Your task to perform on an android device: turn on data saver in the chrome app Image 0: 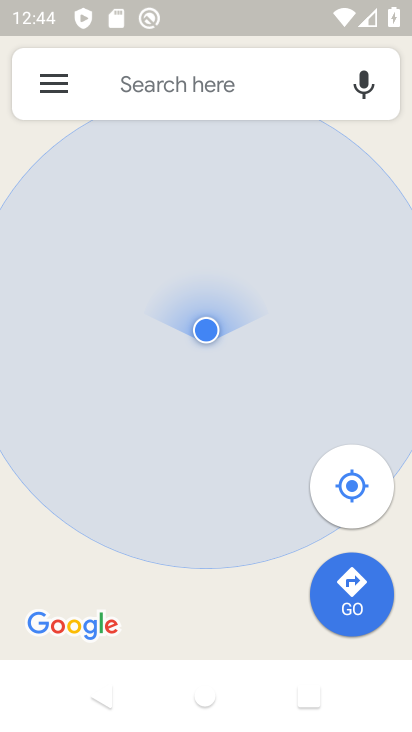
Step 0: press home button
Your task to perform on an android device: turn on data saver in the chrome app Image 1: 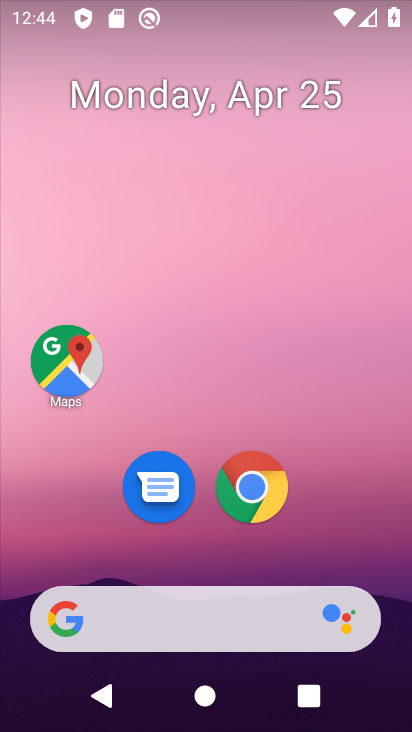
Step 1: drag from (275, 619) to (342, 22)
Your task to perform on an android device: turn on data saver in the chrome app Image 2: 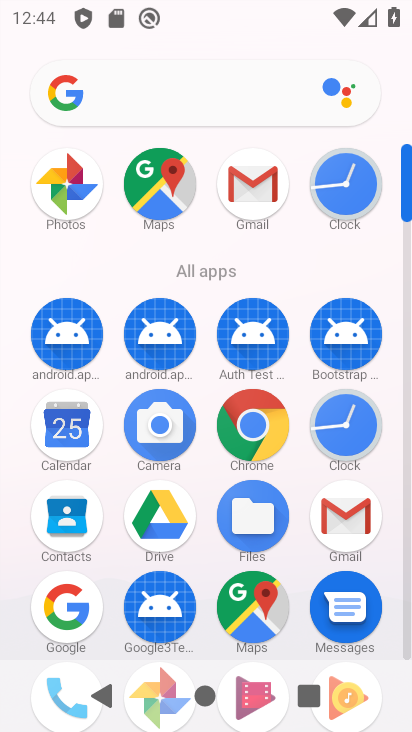
Step 2: click (235, 445)
Your task to perform on an android device: turn on data saver in the chrome app Image 3: 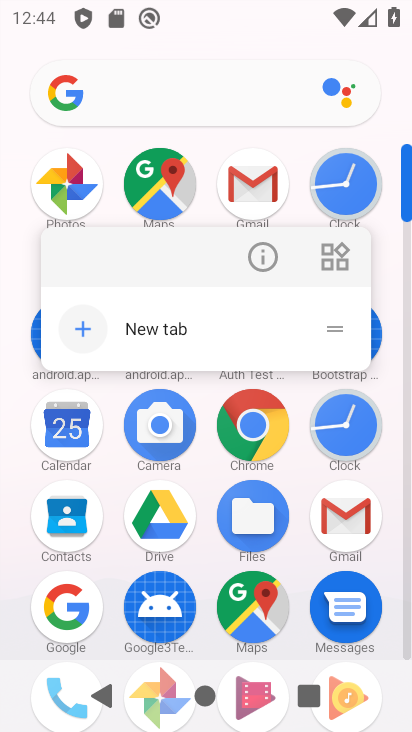
Step 3: click (238, 441)
Your task to perform on an android device: turn on data saver in the chrome app Image 4: 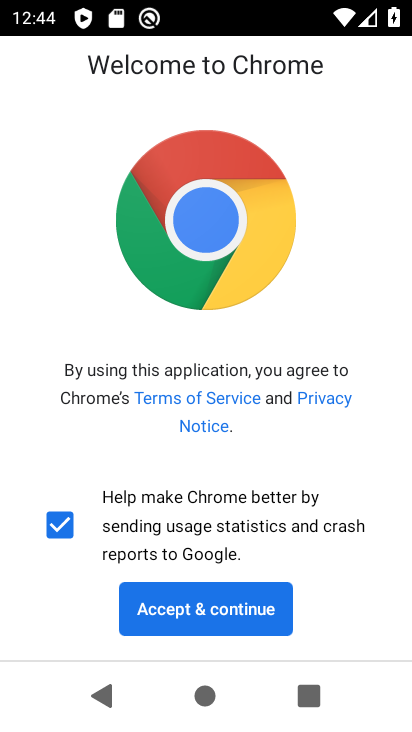
Step 4: click (261, 605)
Your task to perform on an android device: turn on data saver in the chrome app Image 5: 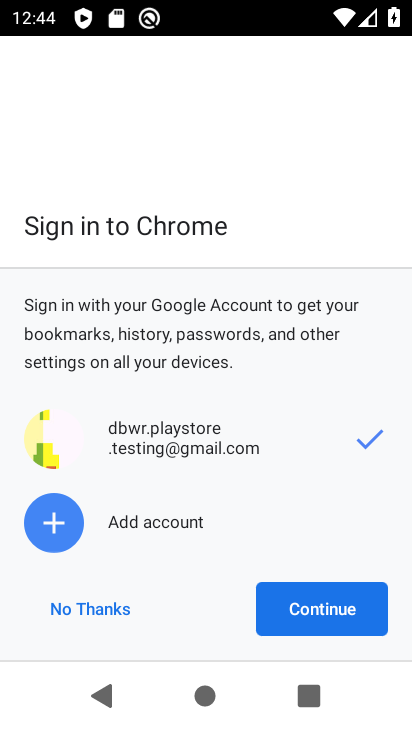
Step 5: click (62, 605)
Your task to perform on an android device: turn on data saver in the chrome app Image 6: 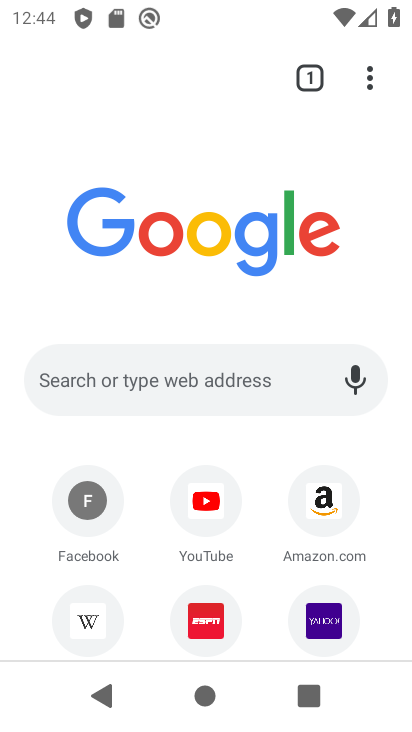
Step 6: drag from (365, 73) to (181, 551)
Your task to perform on an android device: turn on data saver in the chrome app Image 7: 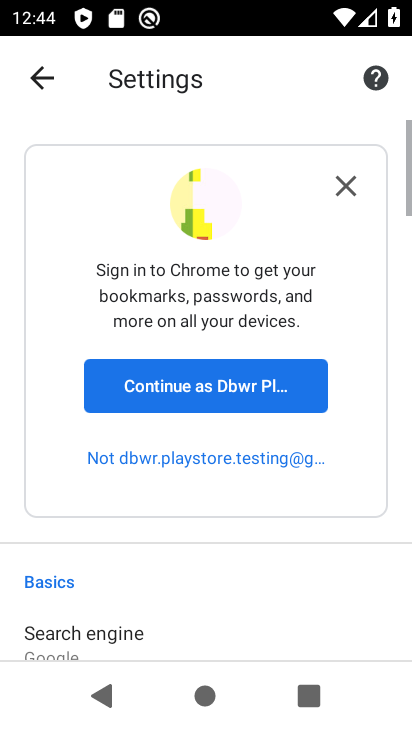
Step 7: drag from (205, 643) to (263, 1)
Your task to perform on an android device: turn on data saver in the chrome app Image 8: 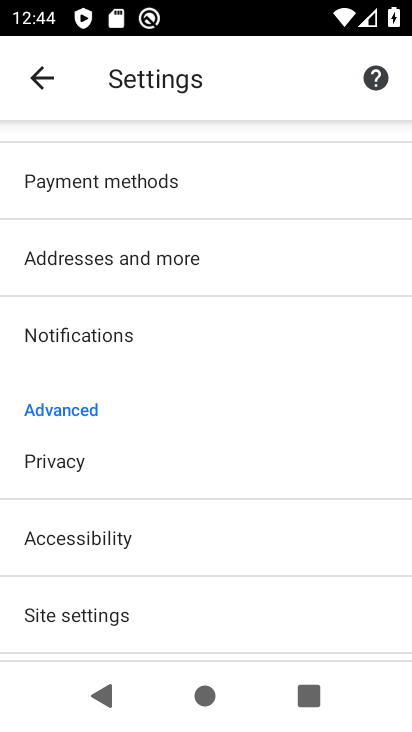
Step 8: drag from (292, 623) to (311, 107)
Your task to perform on an android device: turn on data saver in the chrome app Image 9: 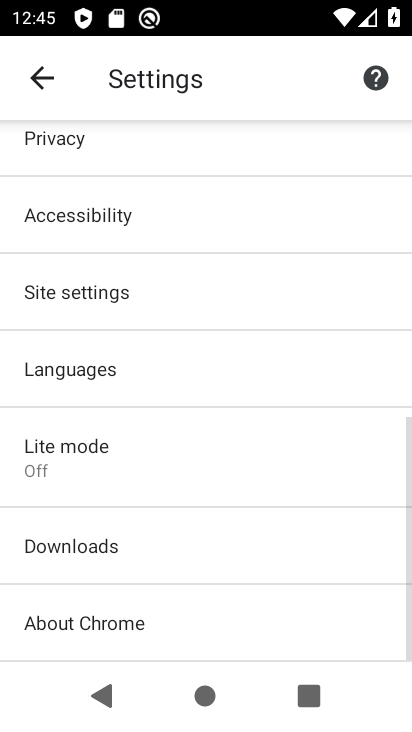
Step 9: click (95, 472)
Your task to perform on an android device: turn on data saver in the chrome app Image 10: 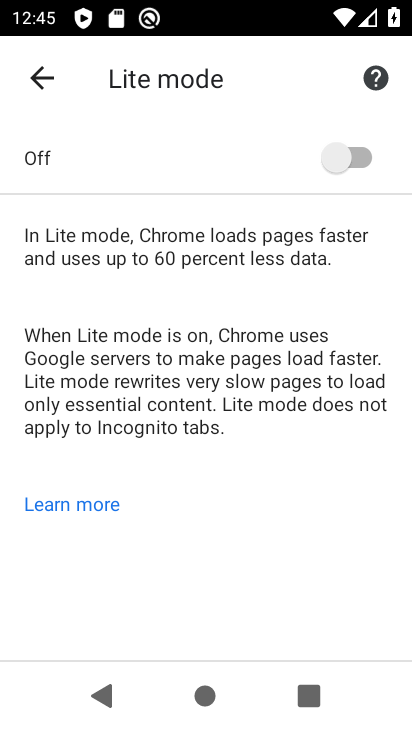
Step 10: click (350, 150)
Your task to perform on an android device: turn on data saver in the chrome app Image 11: 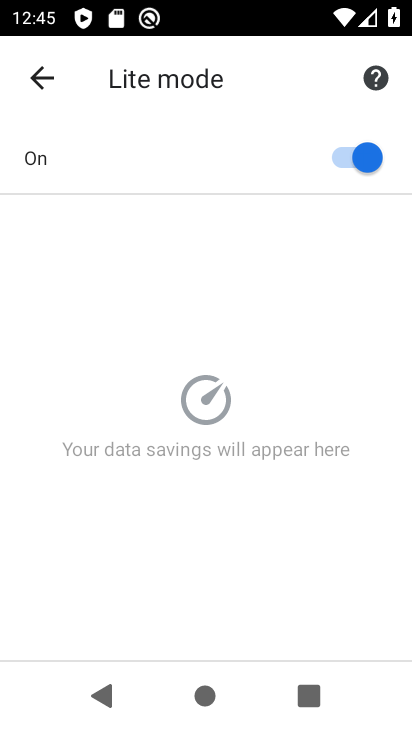
Step 11: task complete